Your task to perform on an android device: What is the recent news? Image 0: 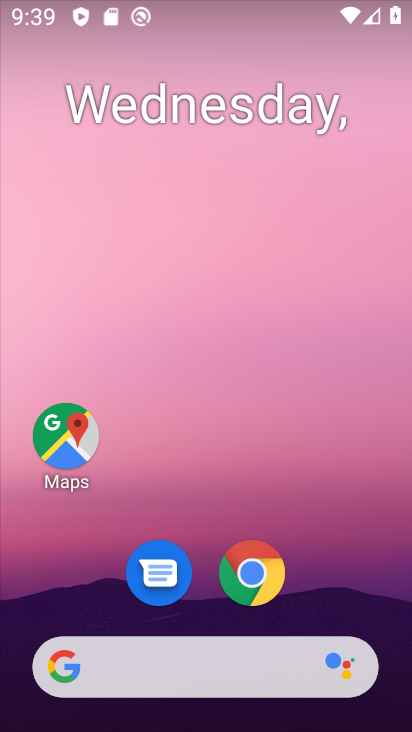
Step 0: click (255, 565)
Your task to perform on an android device: What is the recent news? Image 1: 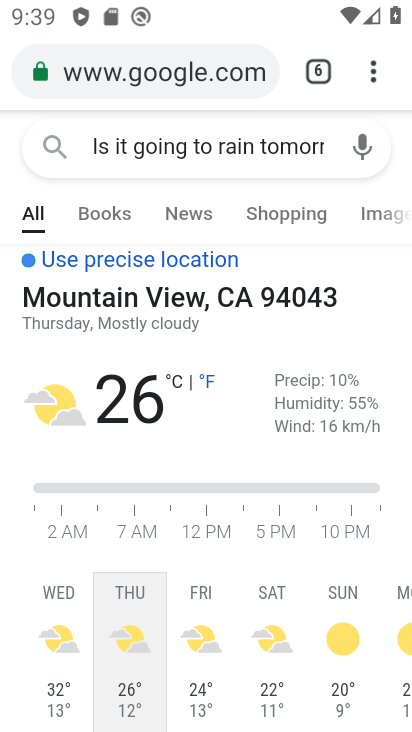
Step 1: click (363, 67)
Your task to perform on an android device: What is the recent news? Image 2: 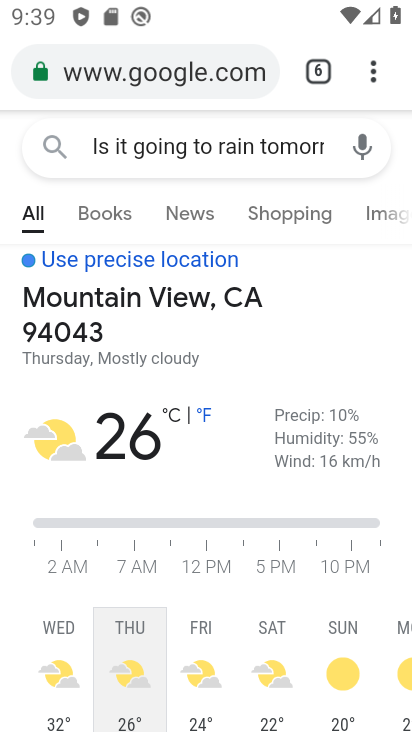
Step 2: click (370, 63)
Your task to perform on an android device: What is the recent news? Image 3: 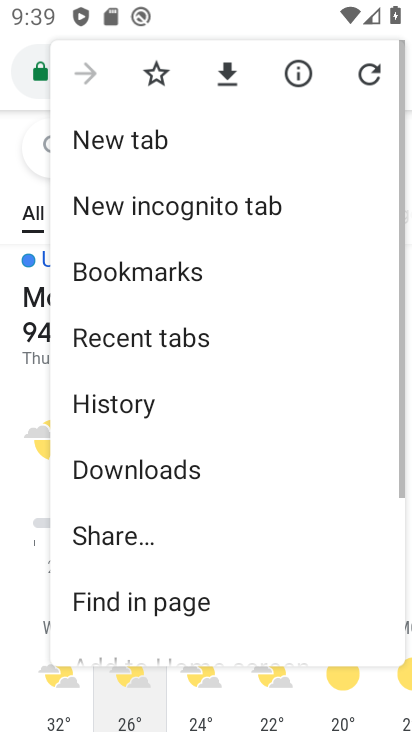
Step 3: click (133, 142)
Your task to perform on an android device: What is the recent news? Image 4: 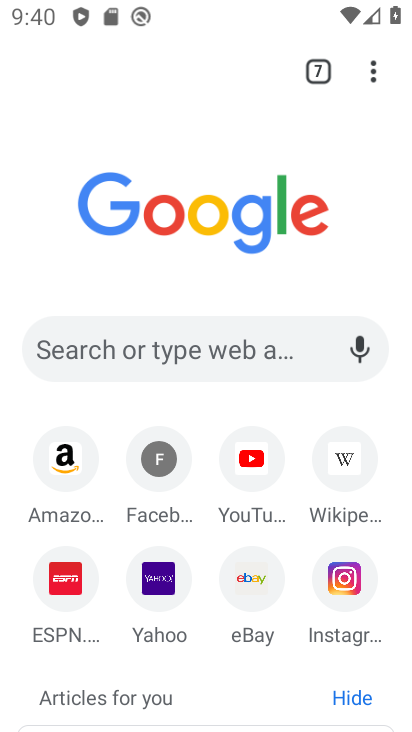
Step 4: click (236, 349)
Your task to perform on an android device: What is the recent news? Image 5: 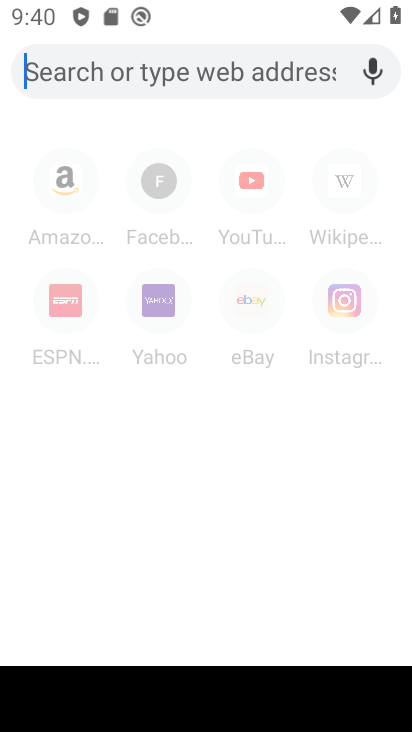
Step 5: type "What is the recent news?"
Your task to perform on an android device: What is the recent news? Image 6: 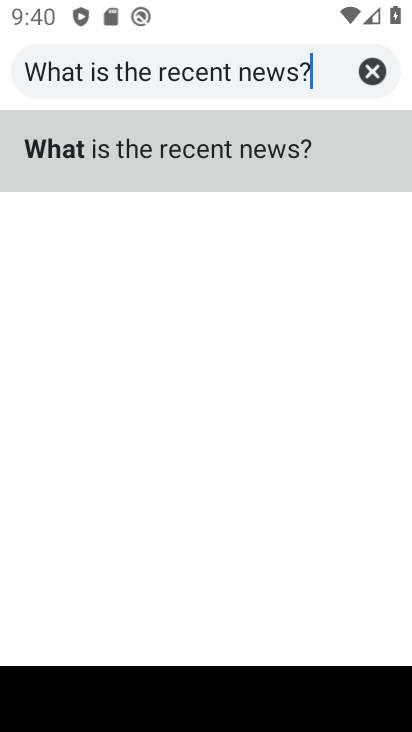
Step 6: click (264, 136)
Your task to perform on an android device: What is the recent news? Image 7: 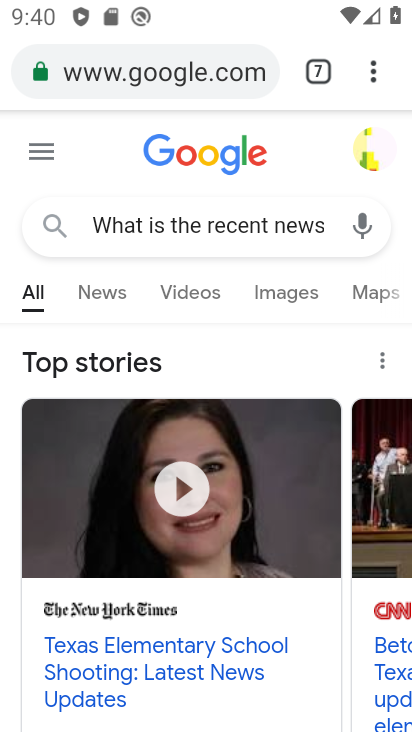
Step 7: task complete